Your task to perform on an android device: Search for sushi restaurants on Maps Image 0: 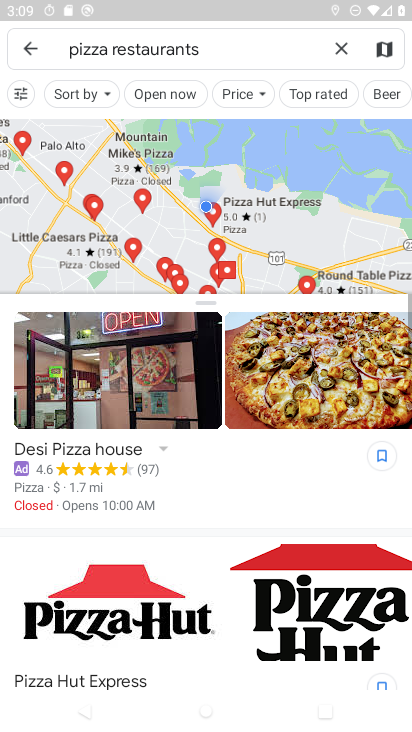
Step 0: press home button
Your task to perform on an android device: Search for sushi restaurants on Maps Image 1: 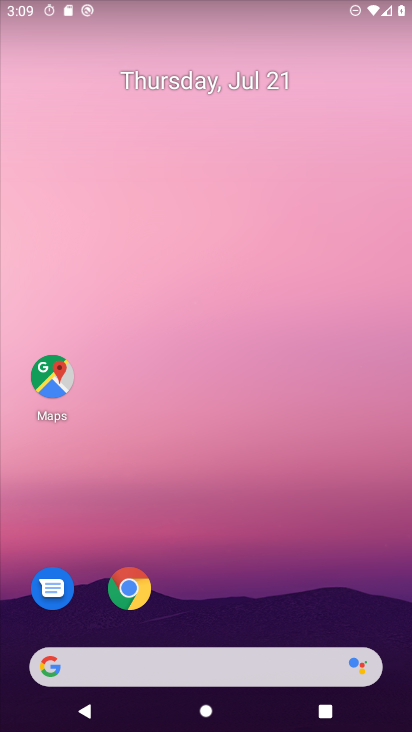
Step 1: drag from (209, 660) to (190, 126)
Your task to perform on an android device: Search for sushi restaurants on Maps Image 2: 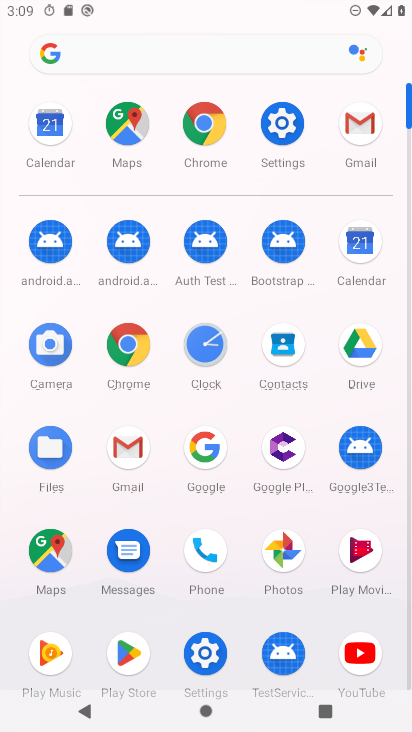
Step 2: click (44, 566)
Your task to perform on an android device: Search for sushi restaurants on Maps Image 3: 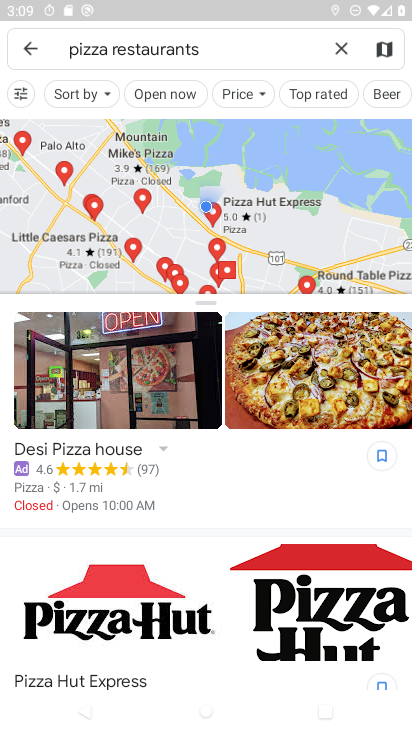
Step 3: click (341, 36)
Your task to perform on an android device: Search for sushi restaurants on Maps Image 4: 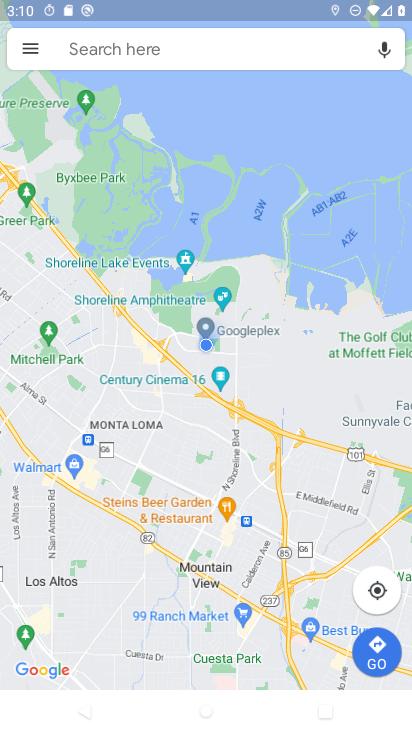
Step 4: click (221, 43)
Your task to perform on an android device: Search for sushi restaurants on Maps Image 5: 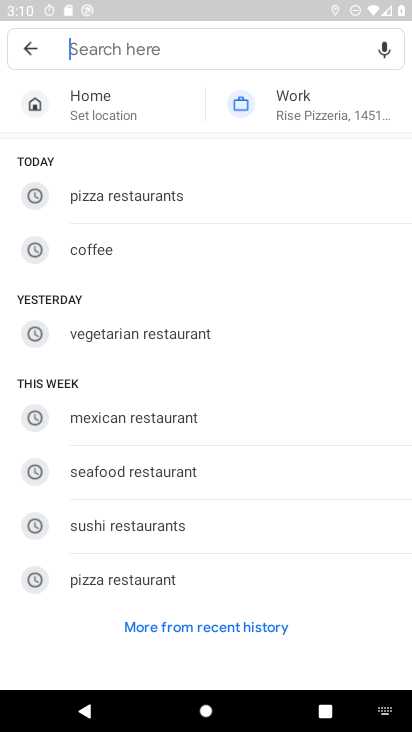
Step 5: click (189, 538)
Your task to perform on an android device: Search for sushi restaurants on Maps Image 6: 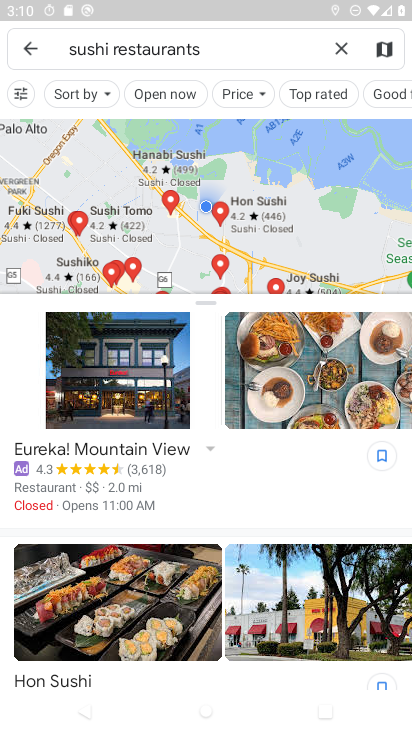
Step 6: task complete